Your task to perform on an android device: Open sound settings Image 0: 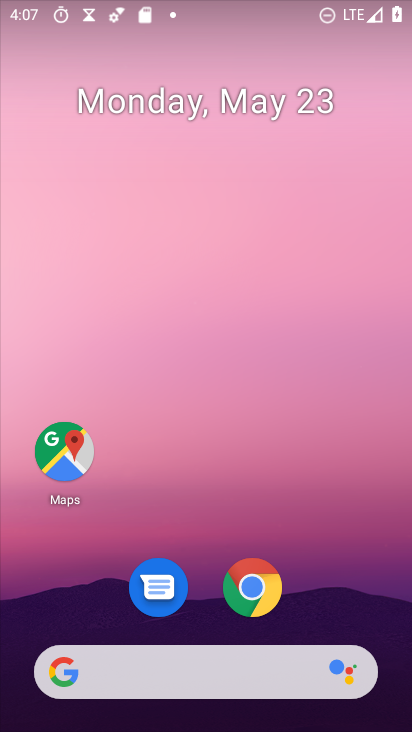
Step 0: drag from (212, 623) to (197, 1)
Your task to perform on an android device: Open sound settings Image 1: 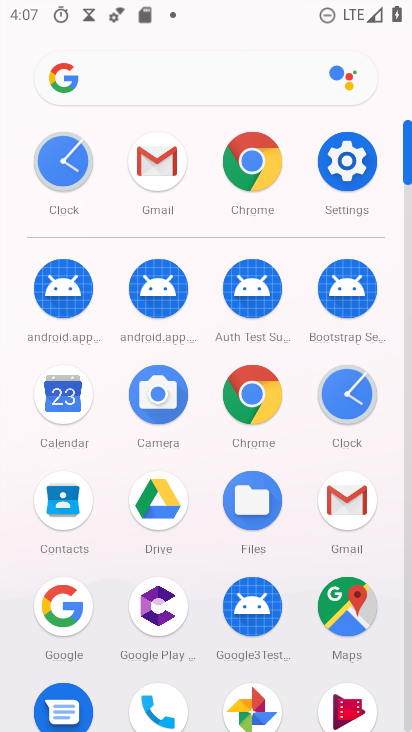
Step 1: click (340, 169)
Your task to perform on an android device: Open sound settings Image 2: 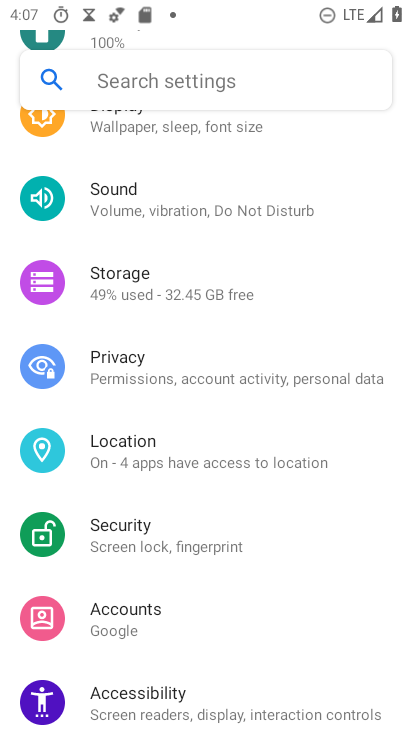
Step 2: click (149, 196)
Your task to perform on an android device: Open sound settings Image 3: 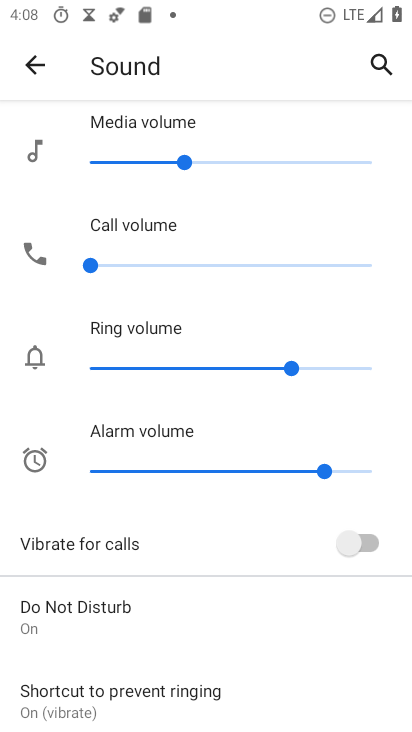
Step 3: task complete